Your task to perform on an android device: Open Google Chrome and click the shortcut for Amazon.com Image 0: 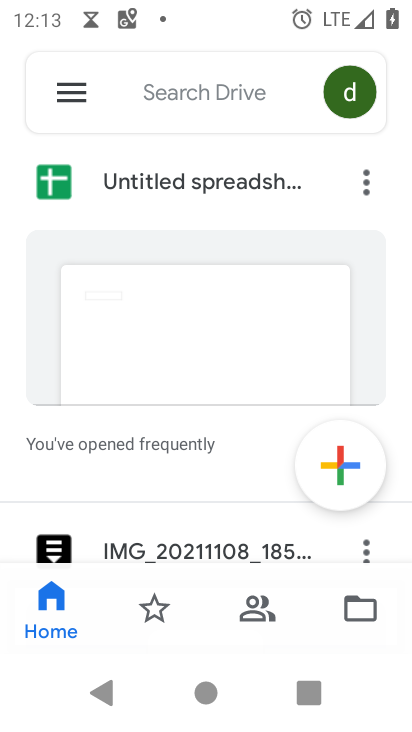
Step 0: press home button
Your task to perform on an android device: Open Google Chrome and click the shortcut for Amazon.com Image 1: 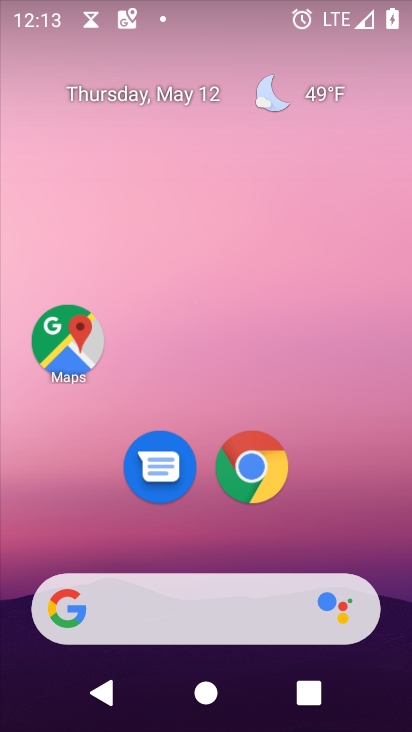
Step 1: drag from (184, 616) to (289, 105)
Your task to perform on an android device: Open Google Chrome and click the shortcut for Amazon.com Image 2: 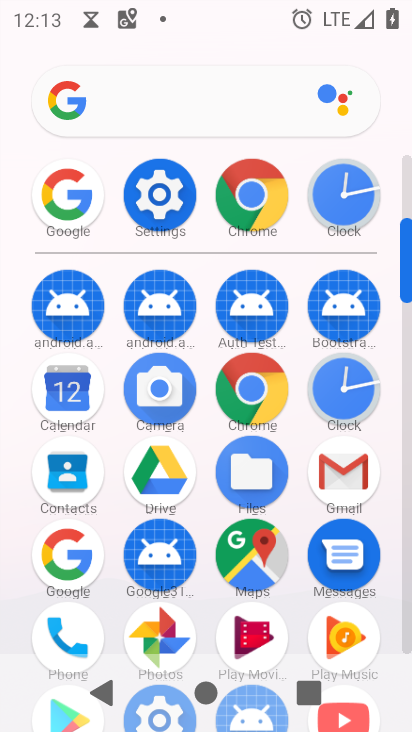
Step 2: click (244, 201)
Your task to perform on an android device: Open Google Chrome and click the shortcut for Amazon.com Image 3: 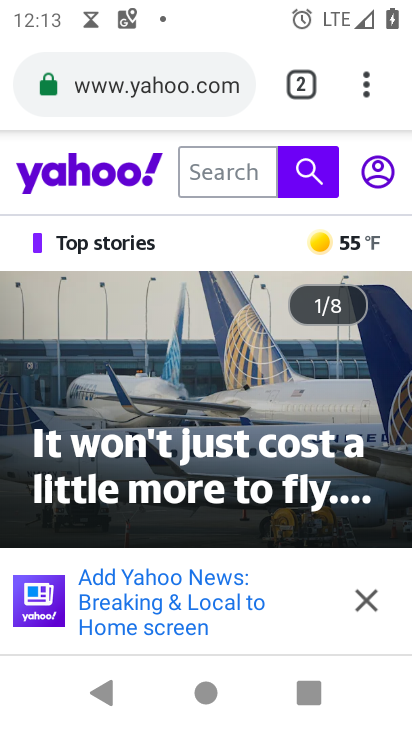
Step 3: drag from (369, 95) to (201, 169)
Your task to perform on an android device: Open Google Chrome and click the shortcut for Amazon.com Image 4: 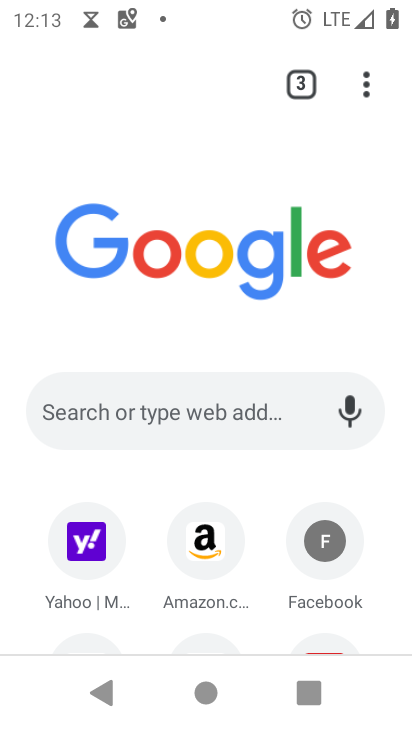
Step 4: click (214, 549)
Your task to perform on an android device: Open Google Chrome and click the shortcut for Amazon.com Image 5: 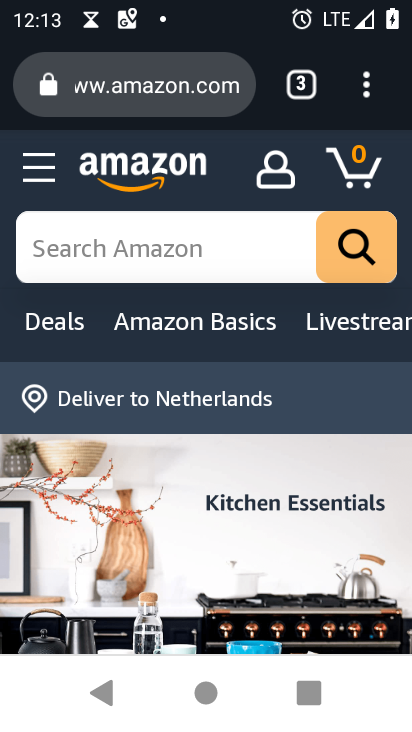
Step 5: task complete